Your task to perform on an android device: What's the weather going to be this weekend? Image 0: 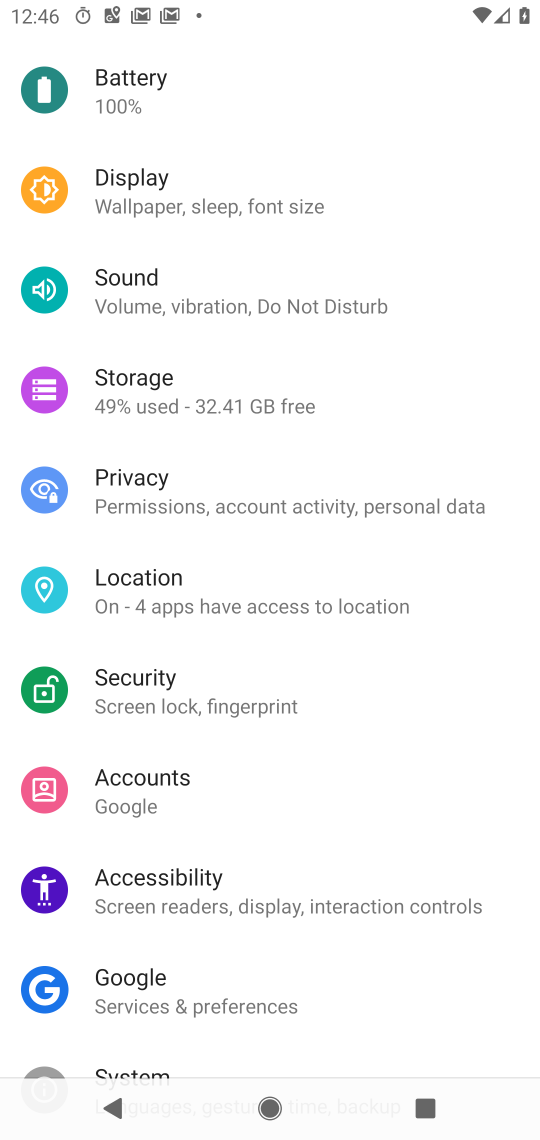
Step 0: press home button
Your task to perform on an android device: What's the weather going to be this weekend? Image 1: 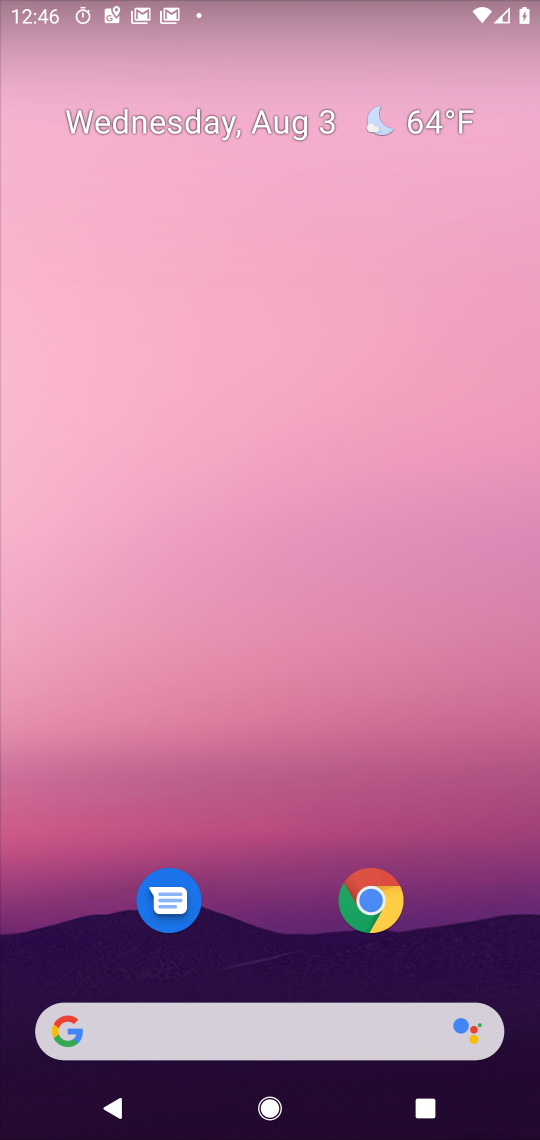
Step 1: drag from (333, 664) to (412, 194)
Your task to perform on an android device: What's the weather going to be this weekend? Image 2: 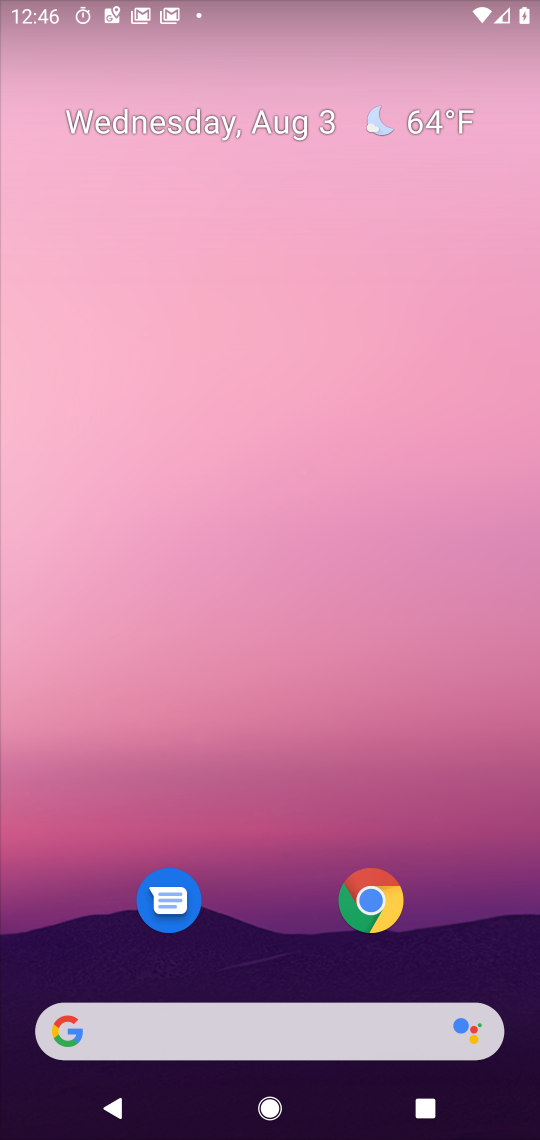
Step 2: drag from (306, 643) to (379, 120)
Your task to perform on an android device: What's the weather going to be this weekend? Image 3: 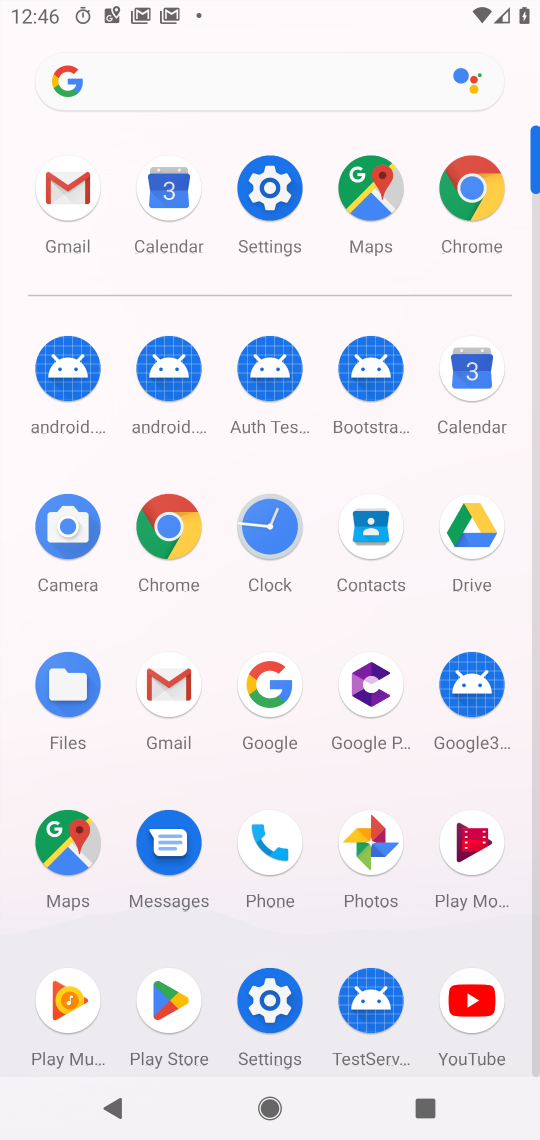
Step 3: click (171, 523)
Your task to perform on an android device: What's the weather going to be this weekend? Image 4: 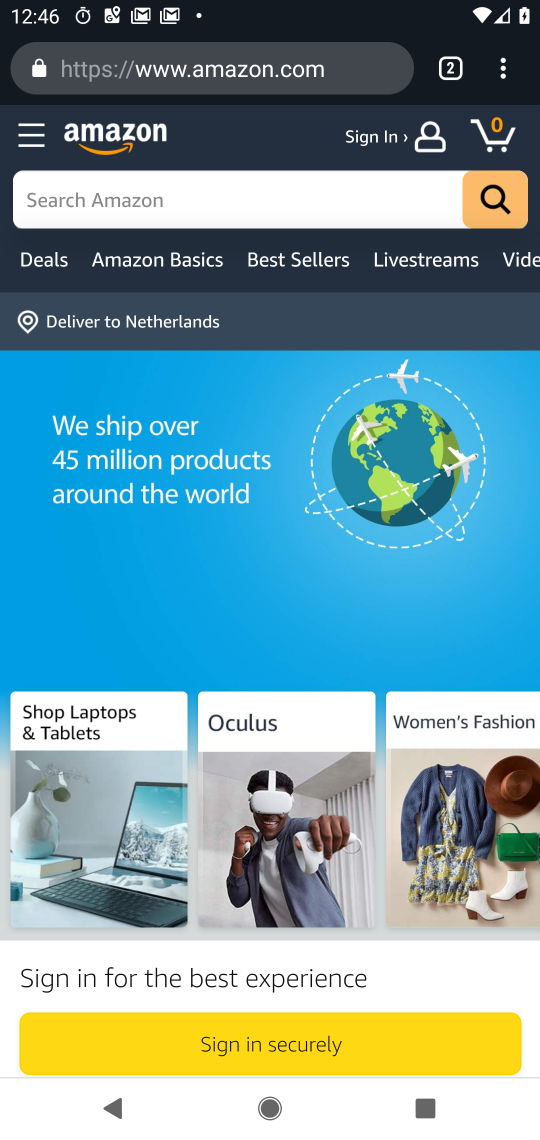
Step 4: click (297, 58)
Your task to perform on an android device: What's the weather going to be this weekend? Image 5: 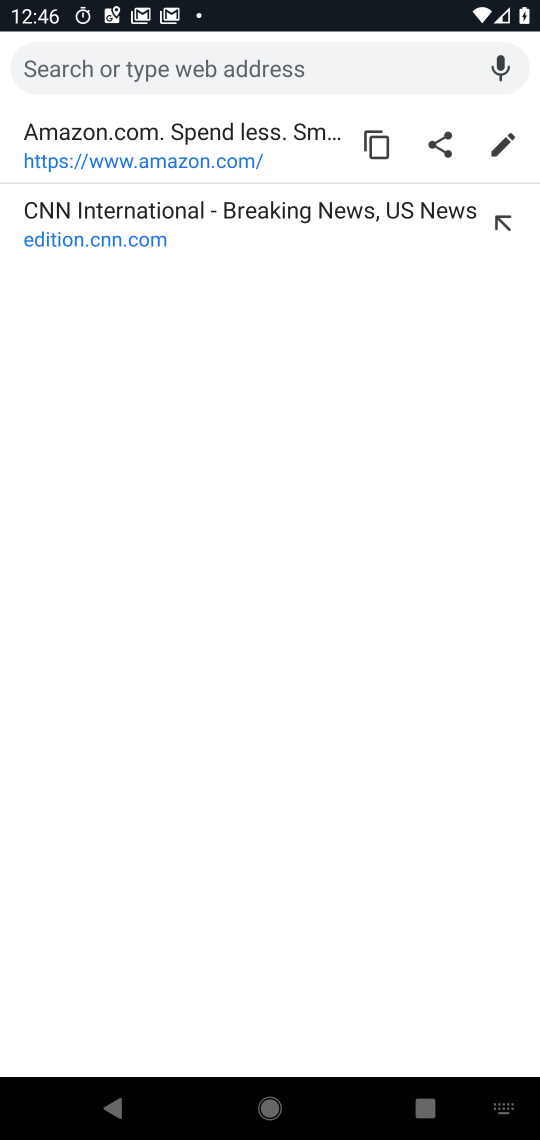
Step 5: type "weather"
Your task to perform on an android device: What's the weather going to be this weekend? Image 6: 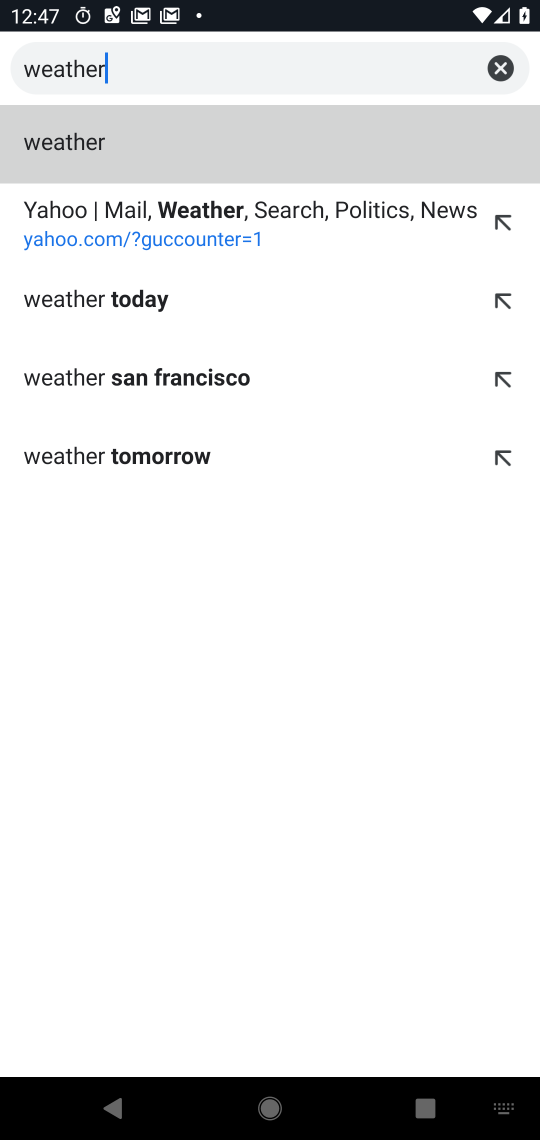
Step 6: press enter
Your task to perform on an android device: What's the weather going to be this weekend? Image 7: 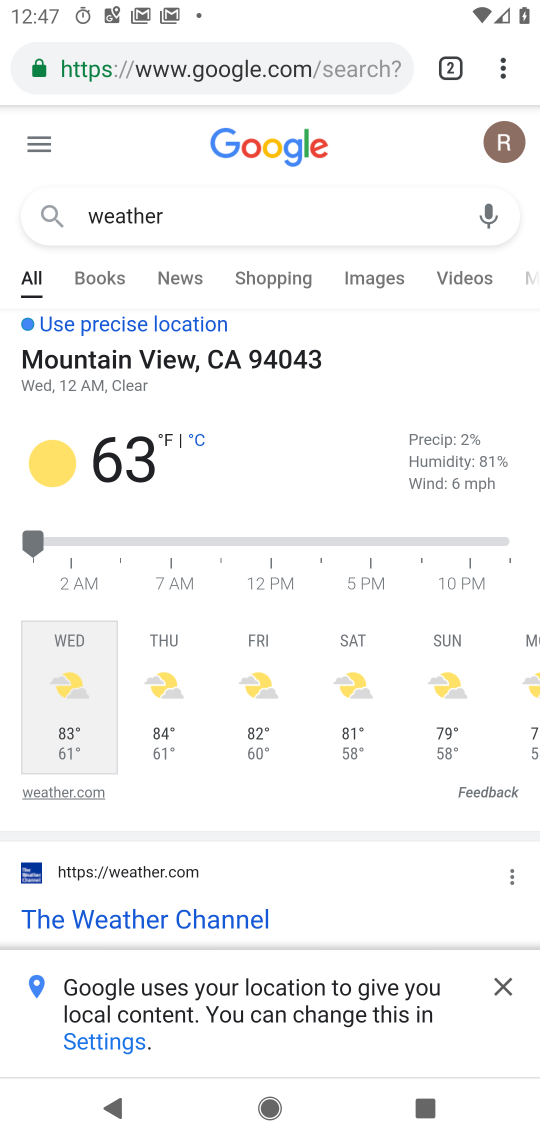
Step 7: click (347, 683)
Your task to perform on an android device: What's the weather going to be this weekend? Image 8: 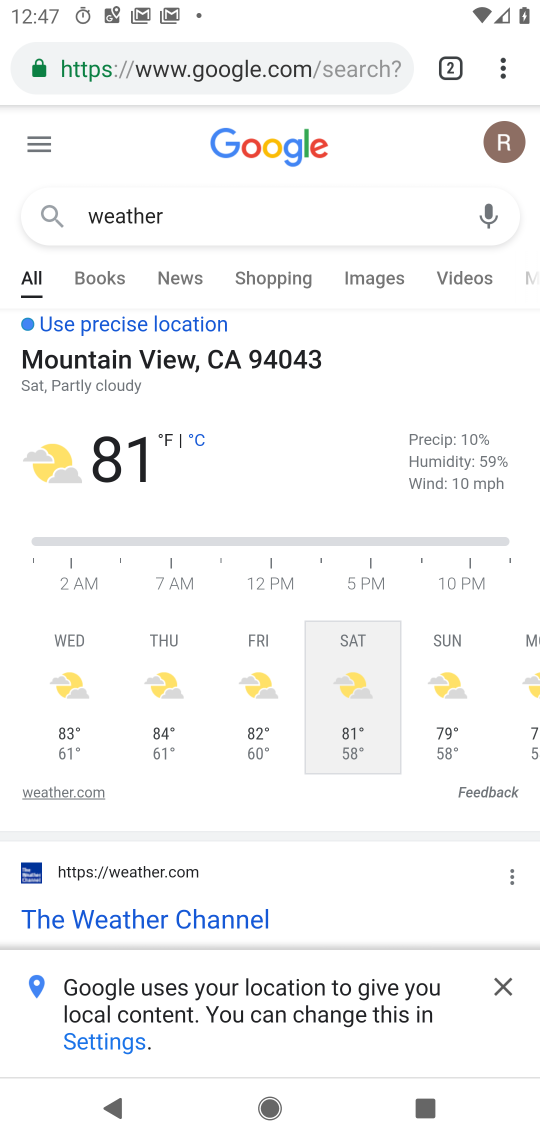
Step 8: task complete